Your task to perform on an android device: Open the calendar app, open the side menu, and click the "Day" option Image 0: 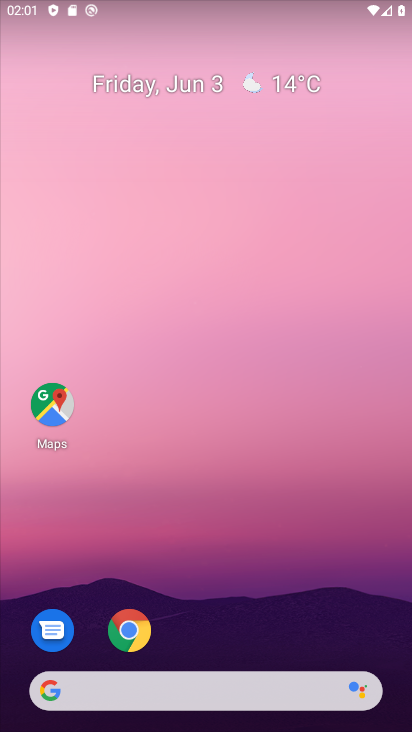
Step 0: drag from (401, 703) to (341, 112)
Your task to perform on an android device: Open the calendar app, open the side menu, and click the "Day" option Image 1: 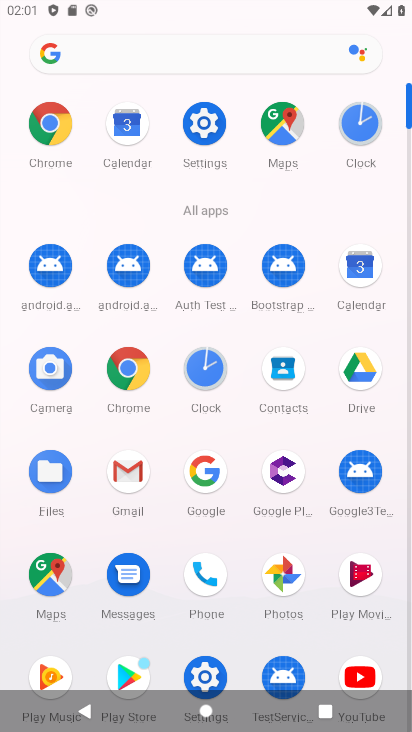
Step 1: click (356, 273)
Your task to perform on an android device: Open the calendar app, open the side menu, and click the "Day" option Image 2: 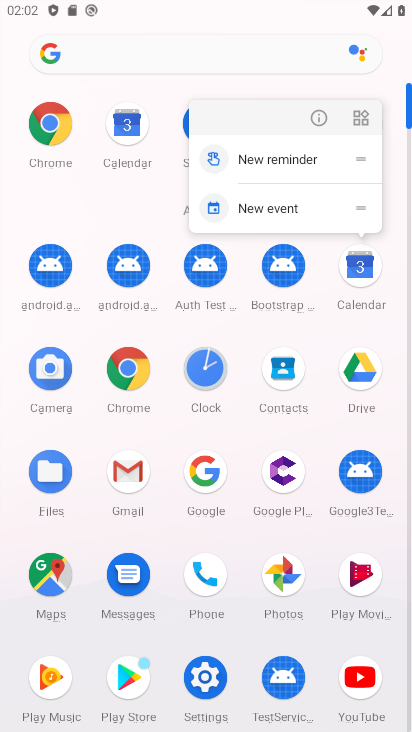
Step 2: click (360, 275)
Your task to perform on an android device: Open the calendar app, open the side menu, and click the "Day" option Image 3: 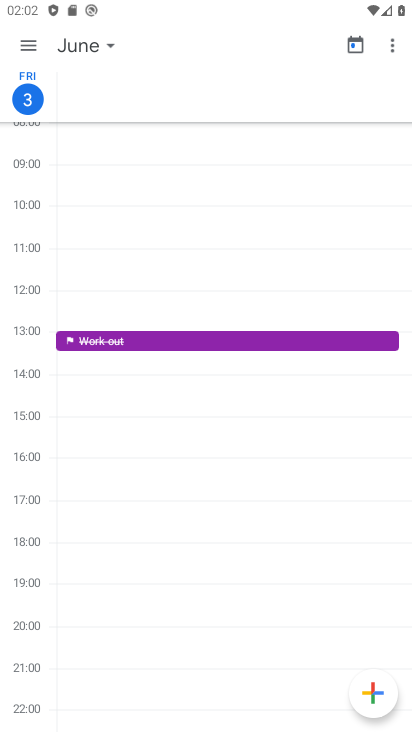
Step 3: click (31, 52)
Your task to perform on an android device: Open the calendar app, open the side menu, and click the "Day" option Image 4: 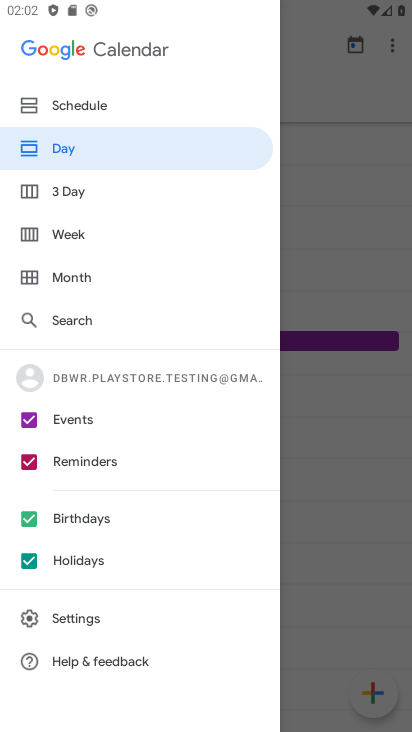
Step 4: click (114, 156)
Your task to perform on an android device: Open the calendar app, open the side menu, and click the "Day" option Image 5: 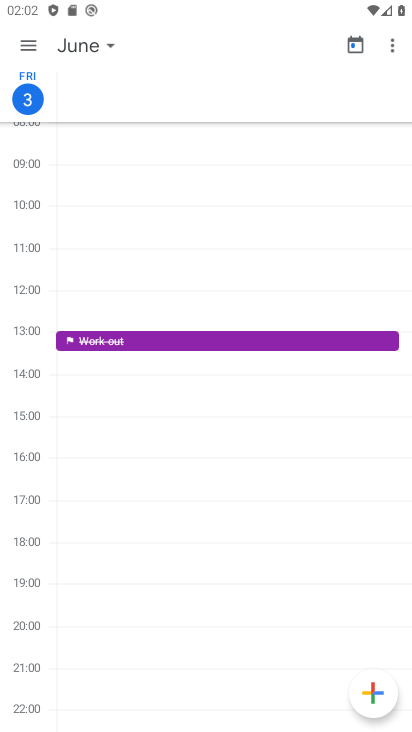
Step 5: task complete